Your task to perform on an android device: Is it going to rain this weekend? Image 0: 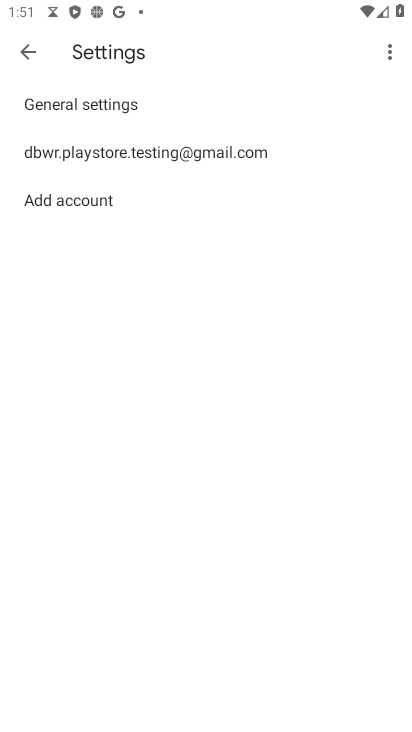
Step 0: press home button
Your task to perform on an android device: Is it going to rain this weekend? Image 1: 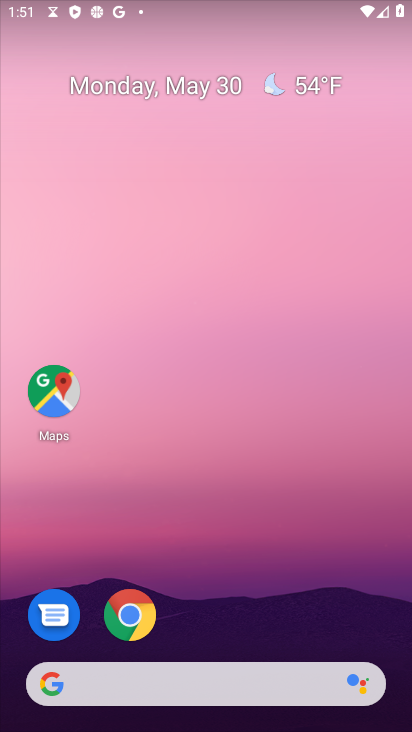
Step 1: drag from (336, 501) to (270, 89)
Your task to perform on an android device: Is it going to rain this weekend? Image 2: 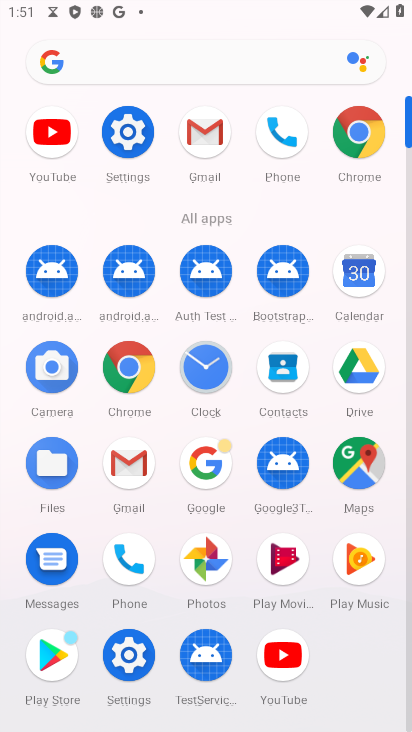
Step 2: press home button
Your task to perform on an android device: Is it going to rain this weekend? Image 3: 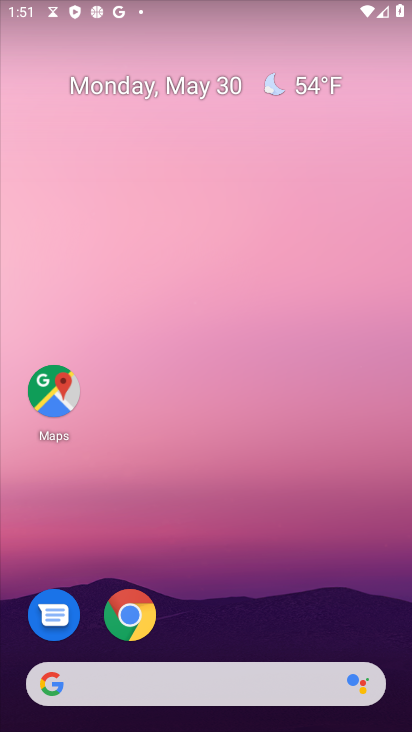
Step 3: click (316, 78)
Your task to perform on an android device: Is it going to rain this weekend? Image 4: 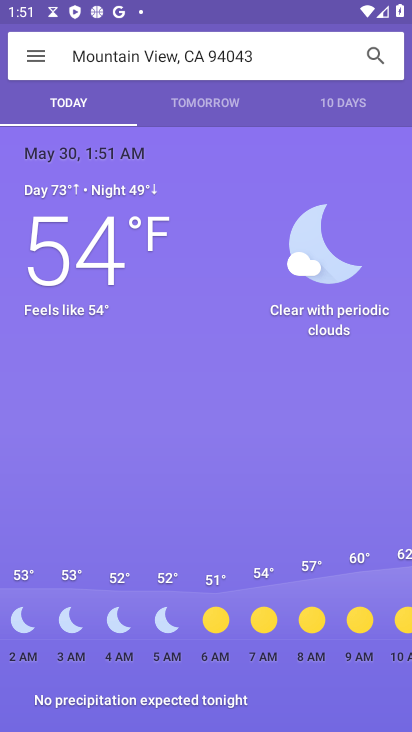
Step 4: click (322, 101)
Your task to perform on an android device: Is it going to rain this weekend? Image 5: 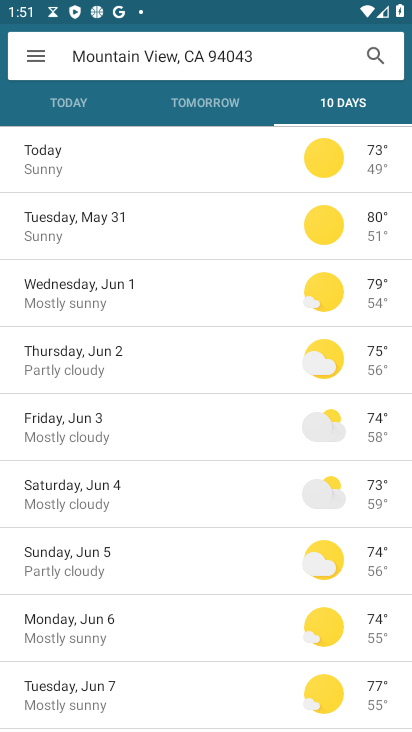
Step 5: task complete